Your task to perform on an android device: Open Google Maps and go to "Timeline" Image 0: 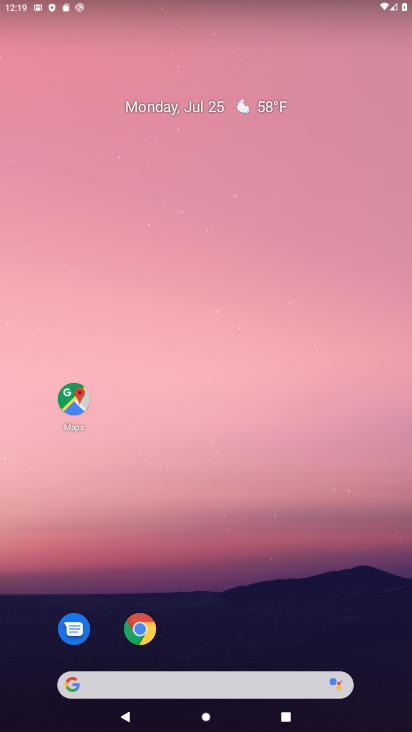
Step 0: drag from (214, 648) to (198, 74)
Your task to perform on an android device: Open Google Maps and go to "Timeline" Image 1: 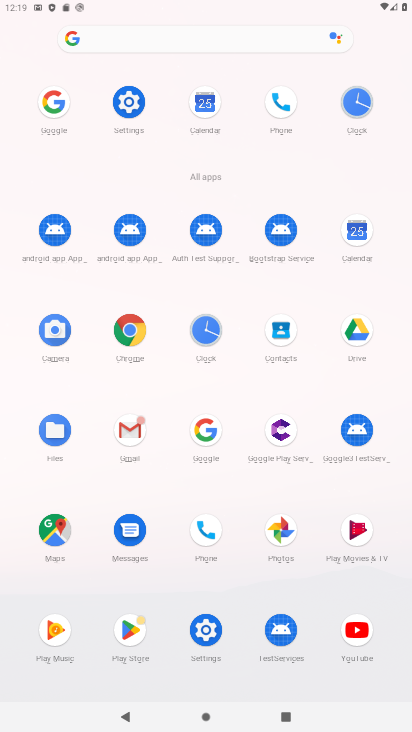
Step 1: click (58, 531)
Your task to perform on an android device: Open Google Maps and go to "Timeline" Image 2: 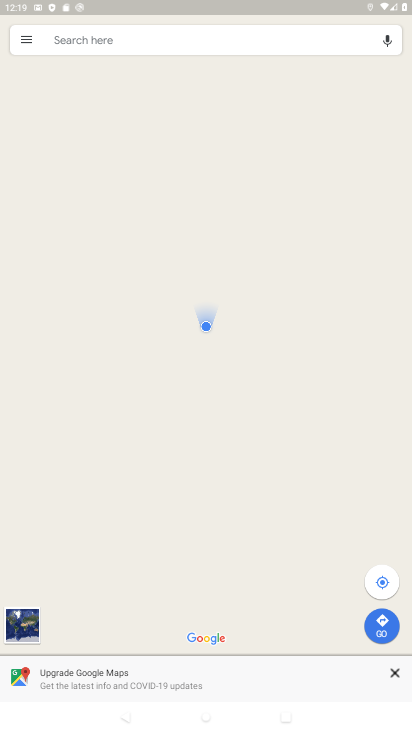
Step 2: click (22, 44)
Your task to perform on an android device: Open Google Maps and go to "Timeline" Image 3: 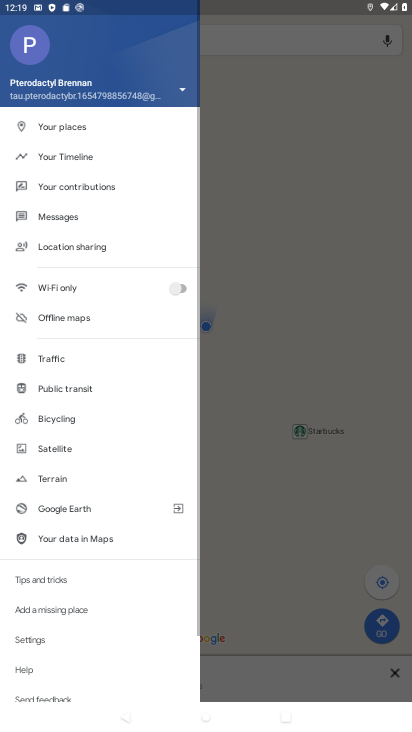
Step 3: click (60, 151)
Your task to perform on an android device: Open Google Maps and go to "Timeline" Image 4: 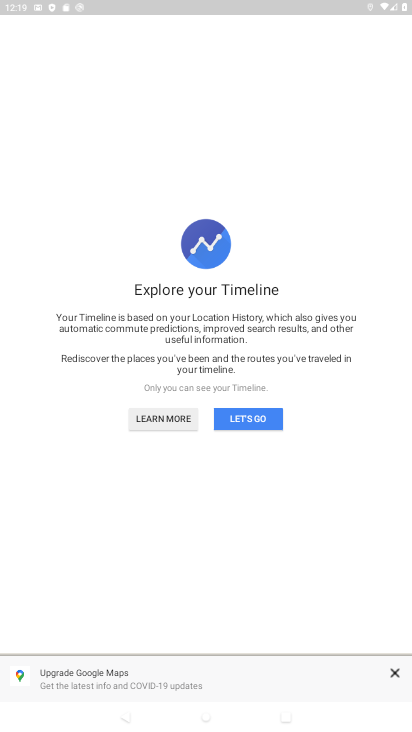
Step 4: click (261, 407)
Your task to perform on an android device: Open Google Maps and go to "Timeline" Image 5: 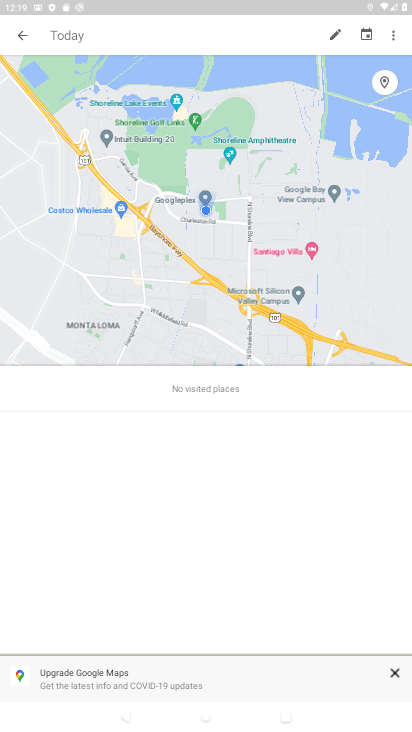
Step 5: click (397, 673)
Your task to perform on an android device: Open Google Maps and go to "Timeline" Image 6: 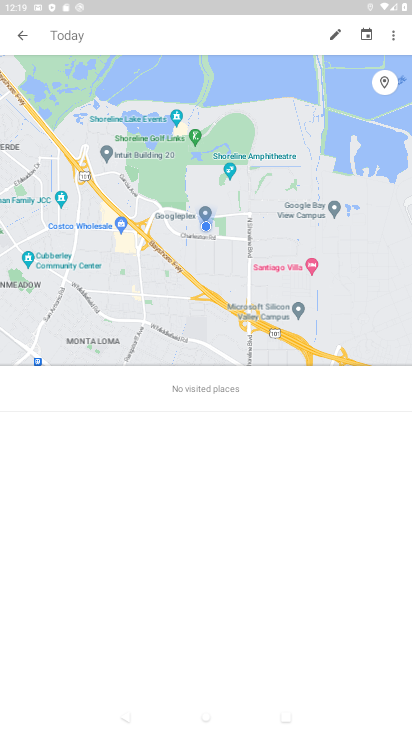
Step 6: task complete